Your task to perform on an android device: Open calendar and show me the fourth week of next month Image 0: 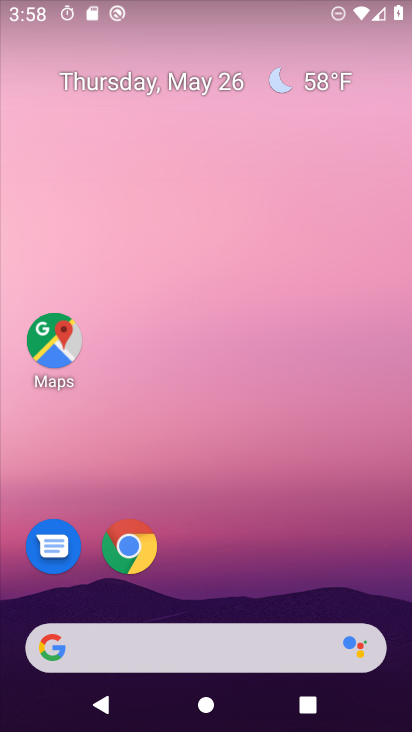
Step 0: press home button
Your task to perform on an android device: Open calendar and show me the fourth week of next month Image 1: 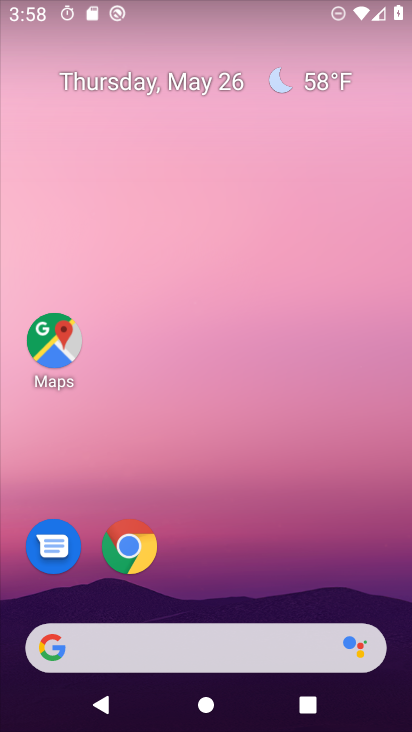
Step 1: drag from (202, 597) to (212, 79)
Your task to perform on an android device: Open calendar and show me the fourth week of next month Image 2: 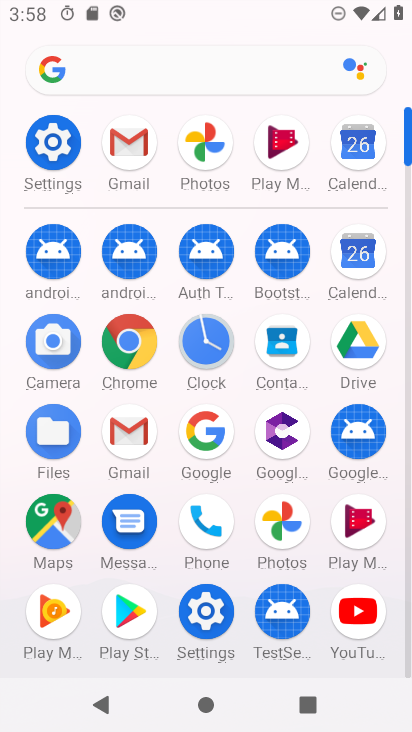
Step 2: click (356, 248)
Your task to perform on an android device: Open calendar and show me the fourth week of next month Image 3: 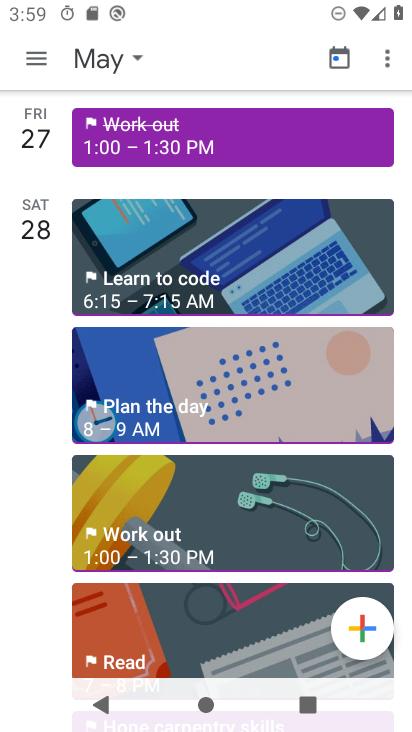
Step 3: click (128, 58)
Your task to perform on an android device: Open calendar and show me the fourth week of next month Image 4: 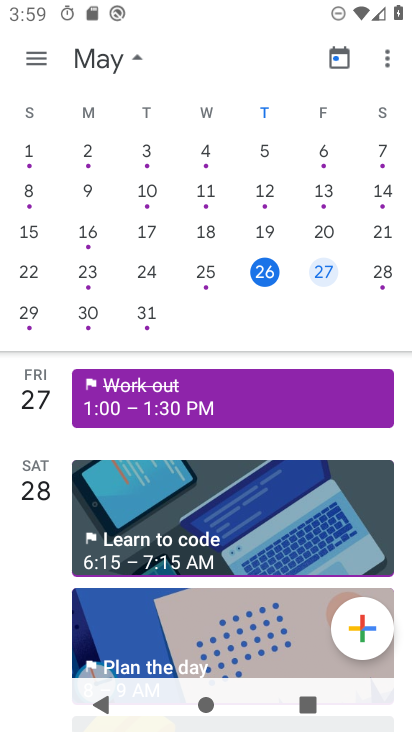
Step 4: drag from (354, 201) to (172, 188)
Your task to perform on an android device: Open calendar and show me the fourth week of next month Image 5: 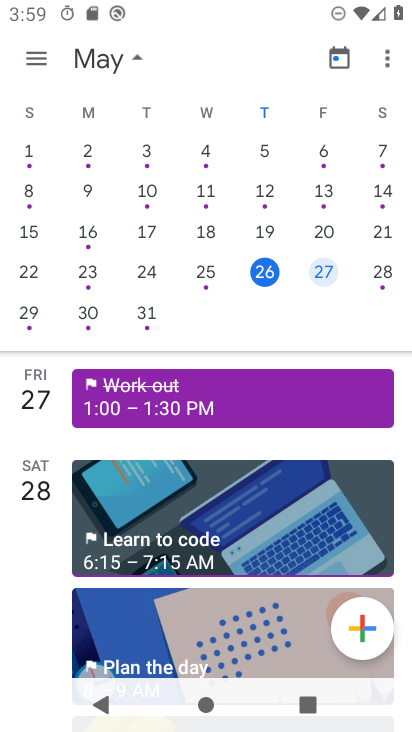
Step 5: drag from (320, 224) to (6, 203)
Your task to perform on an android device: Open calendar and show me the fourth week of next month Image 6: 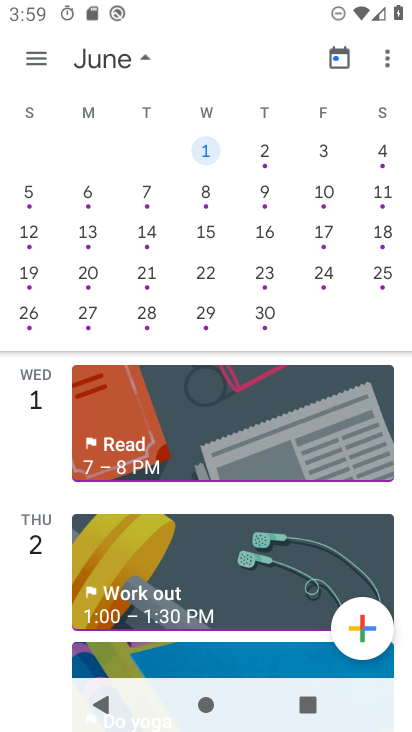
Step 6: click (24, 275)
Your task to perform on an android device: Open calendar and show me the fourth week of next month Image 7: 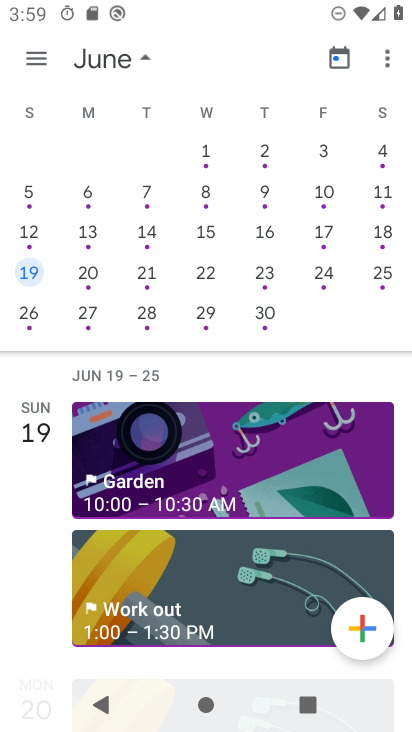
Step 7: click (145, 53)
Your task to perform on an android device: Open calendar and show me the fourth week of next month Image 8: 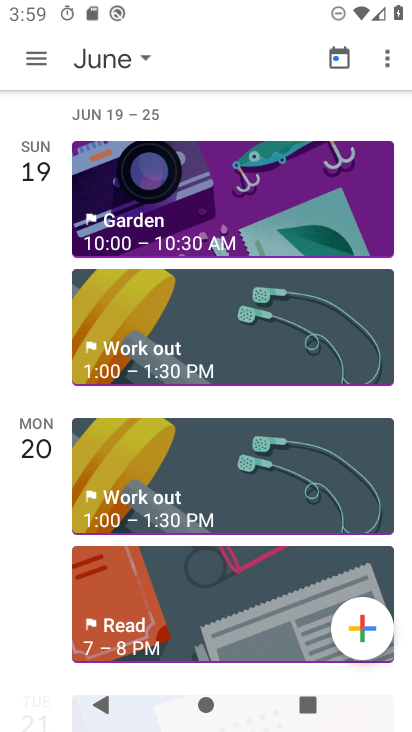
Step 8: task complete